Your task to perform on an android device: snooze an email in the gmail app Image 0: 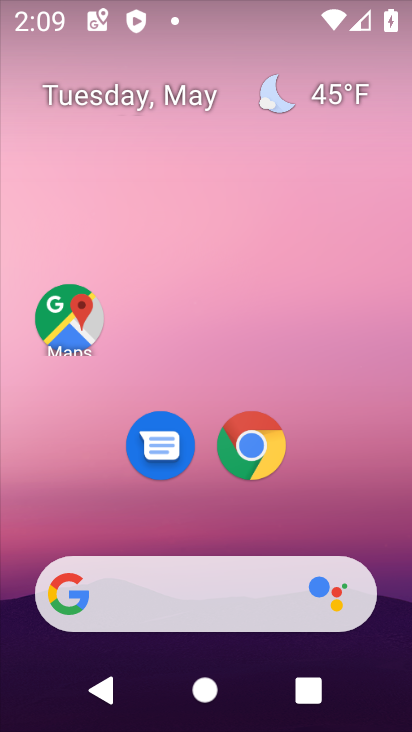
Step 0: drag from (229, 548) to (340, 23)
Your task to perform on an android device: snooze an email in the gmail app Image 1: 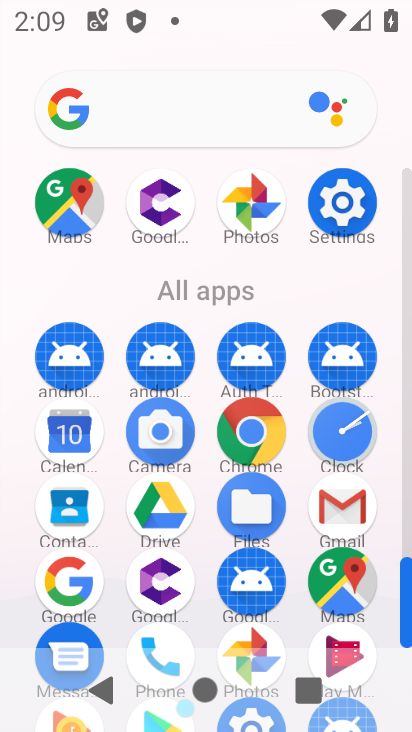
Step 1: click (330, 507)
Your task to perform on an android device: snooze an email in the gmail app Image 2: 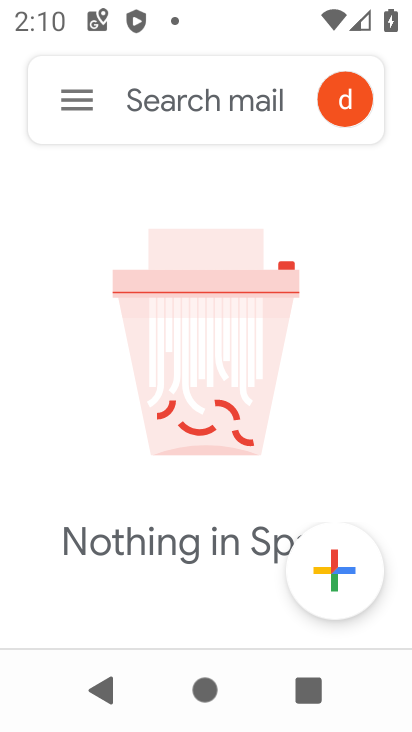
Step 2: click (59, 102)
Your task to perform on an android device: snooze an email in the gmail app Image 3: 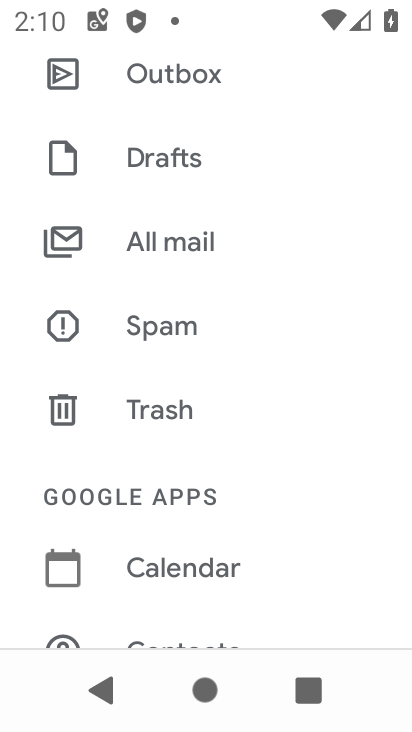
Step 3: drag from (175, 624) to (185, 668)
Your task to perform on an android device: snooze an email in the gmail app Image 4: 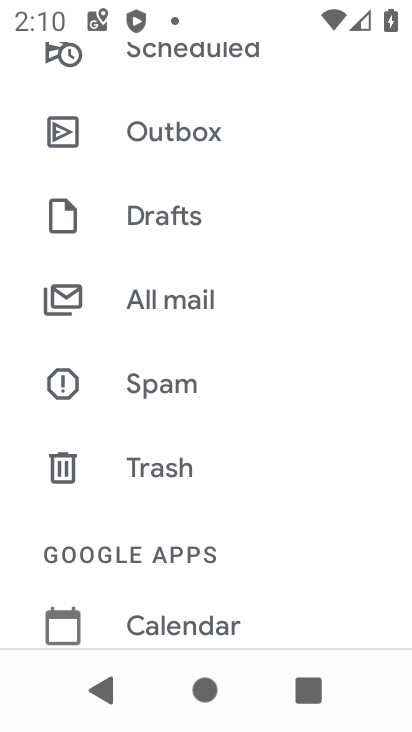
Step 4: click (145, 275)
Your task to perform on an android device: snooze an email in the gmail app Image 5: 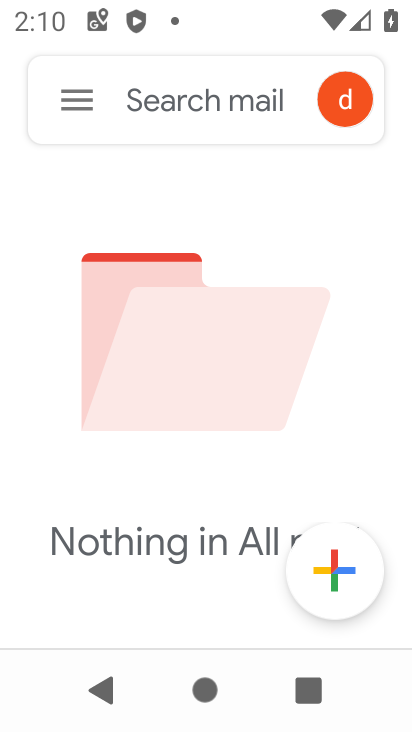
Step 5: click (75, 83)
Your task to perform on an android device: snooze an email in the gmail app Image 6: 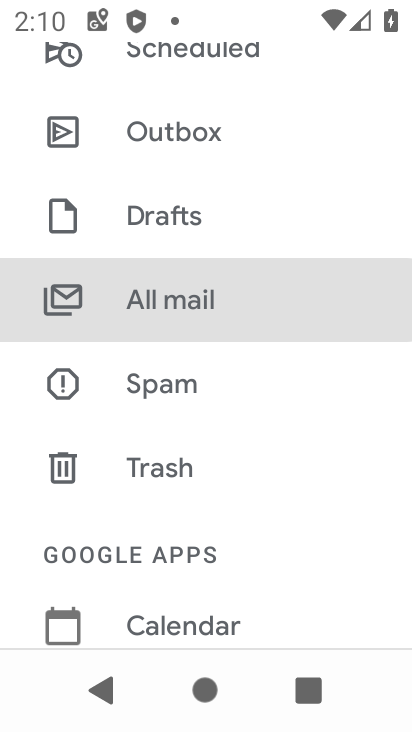
Step 6: click (192, 299)
Your task to perform on an android device: snooze an email in the gmail app Image 7: 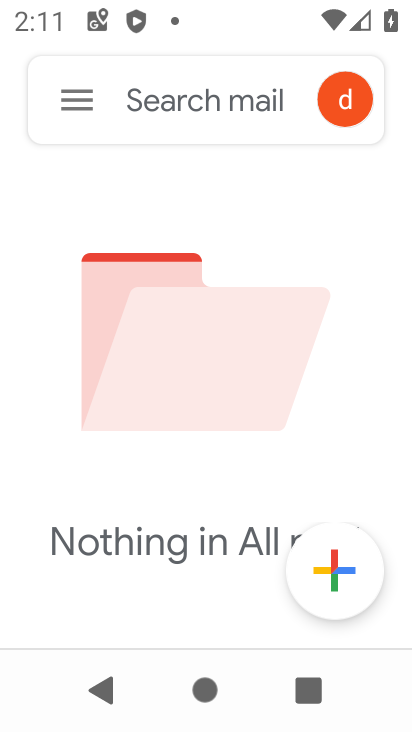
Step 7: task complete